Your task to perform on an android device: turn off notifications in google photos Image 0: 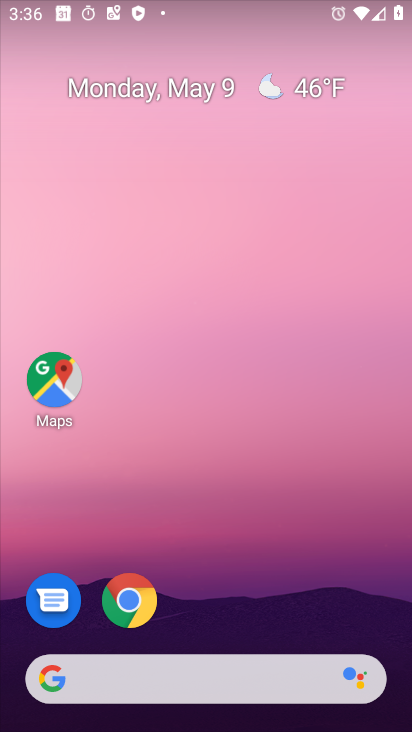
Step 0: drag from (219, 564) to (303, 33)
Your task to perform on an android device: turn off notifications in google photos Image 1: 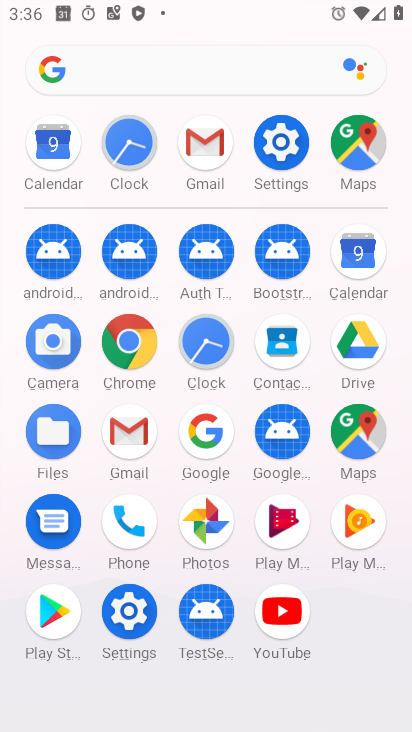
Step 1: click (209, 523)
Your task to perform on an android device: turn off notifications in google photos Image 2: 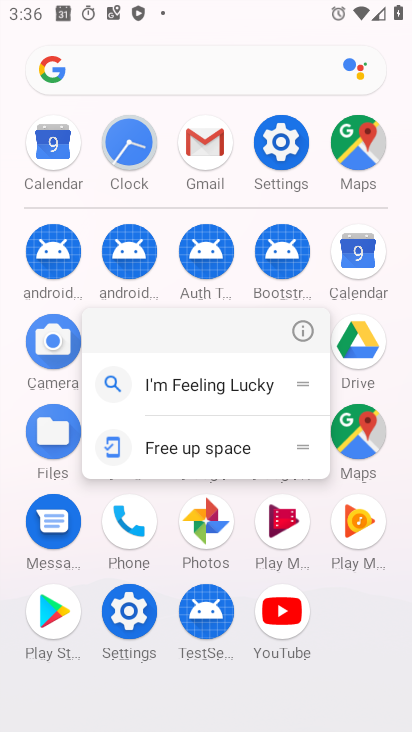
Step 2: click (312, 332)
Your task to perform on an android device: turn off notifications in google photos Image 3: 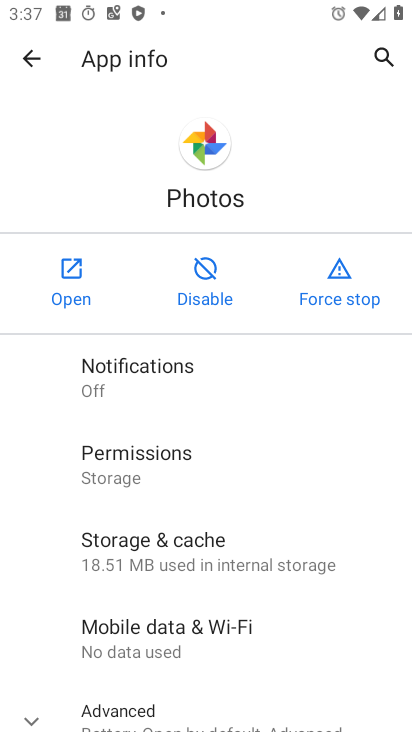
Step 3: click (146, 367)
Your task to perform on an android device: turn off notifications in google photos Image 4: 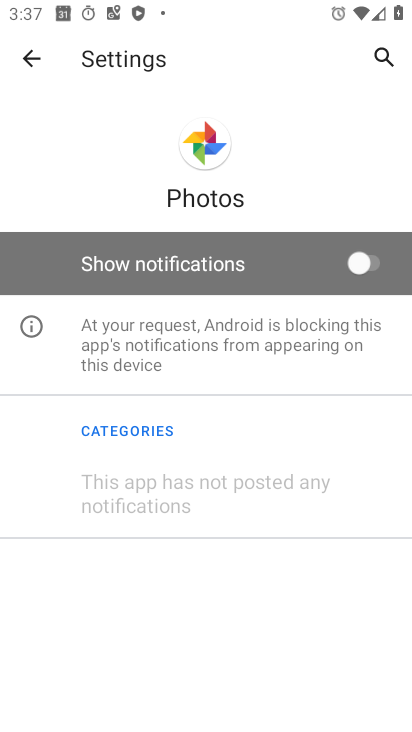
Step 4: task complete